Your task to perform on an android device: toggle show notifications on the lock screen Image 0: 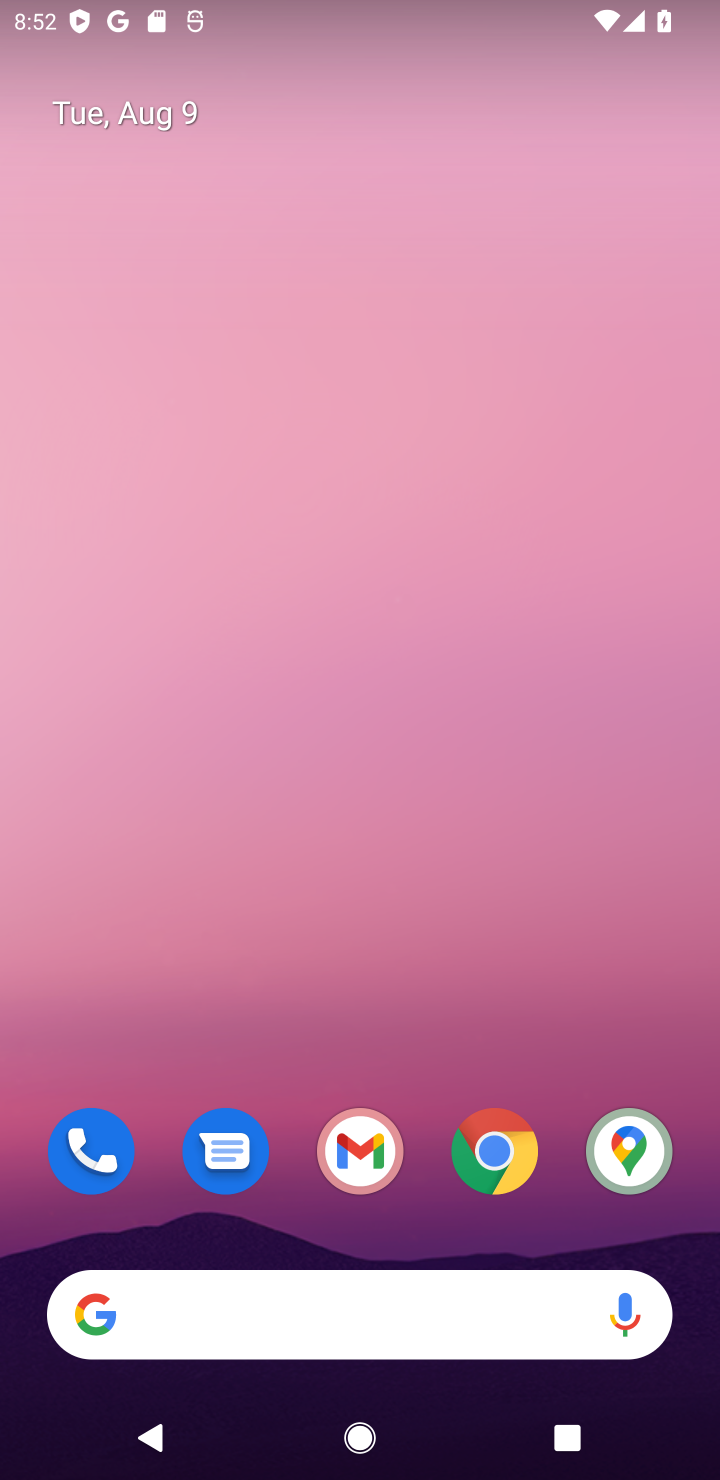
Step 0: drag from (295, 1220) to (409, 464)
Your task to perform on an android device: toggle show notifications on the lock screen Image 1: 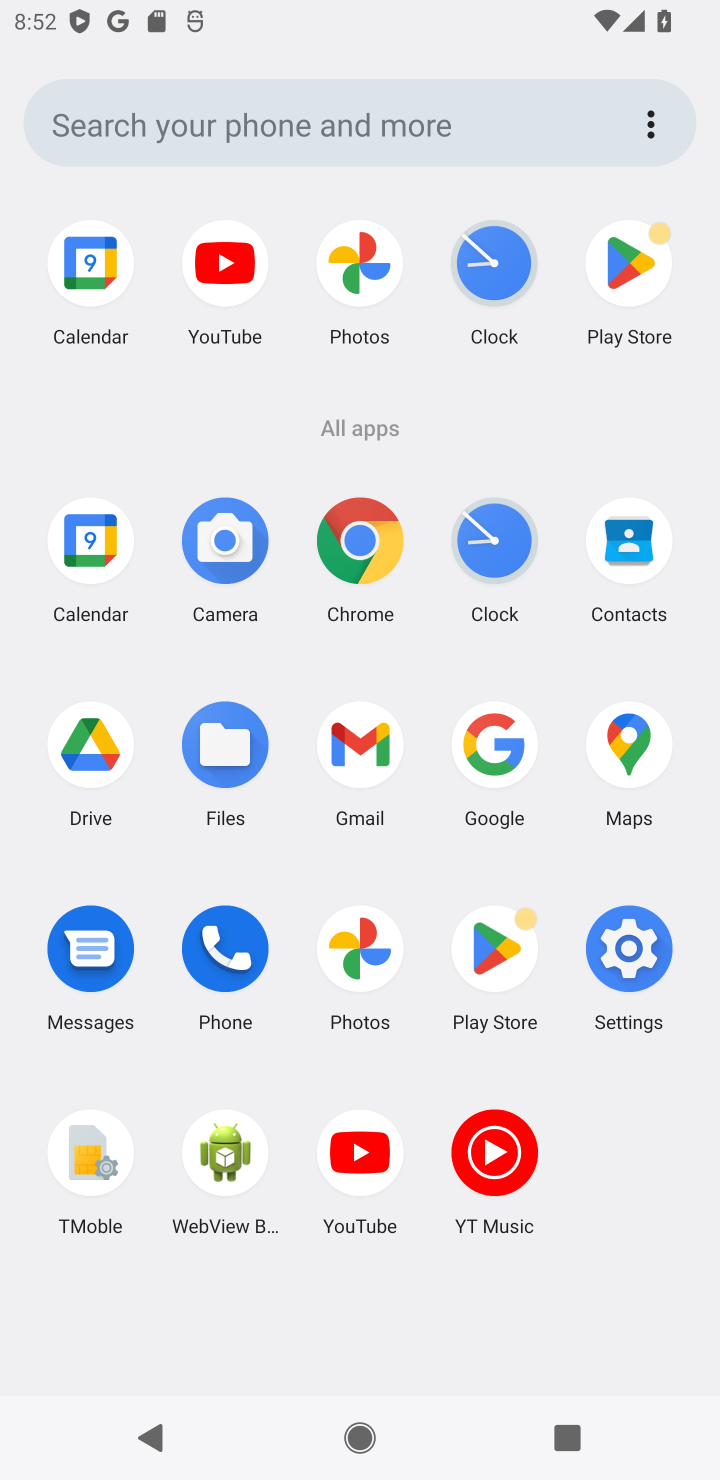
Step 1: click (606, 988)
Your task to perform on an android device: toggle show notifications on the lock screen Image 2: 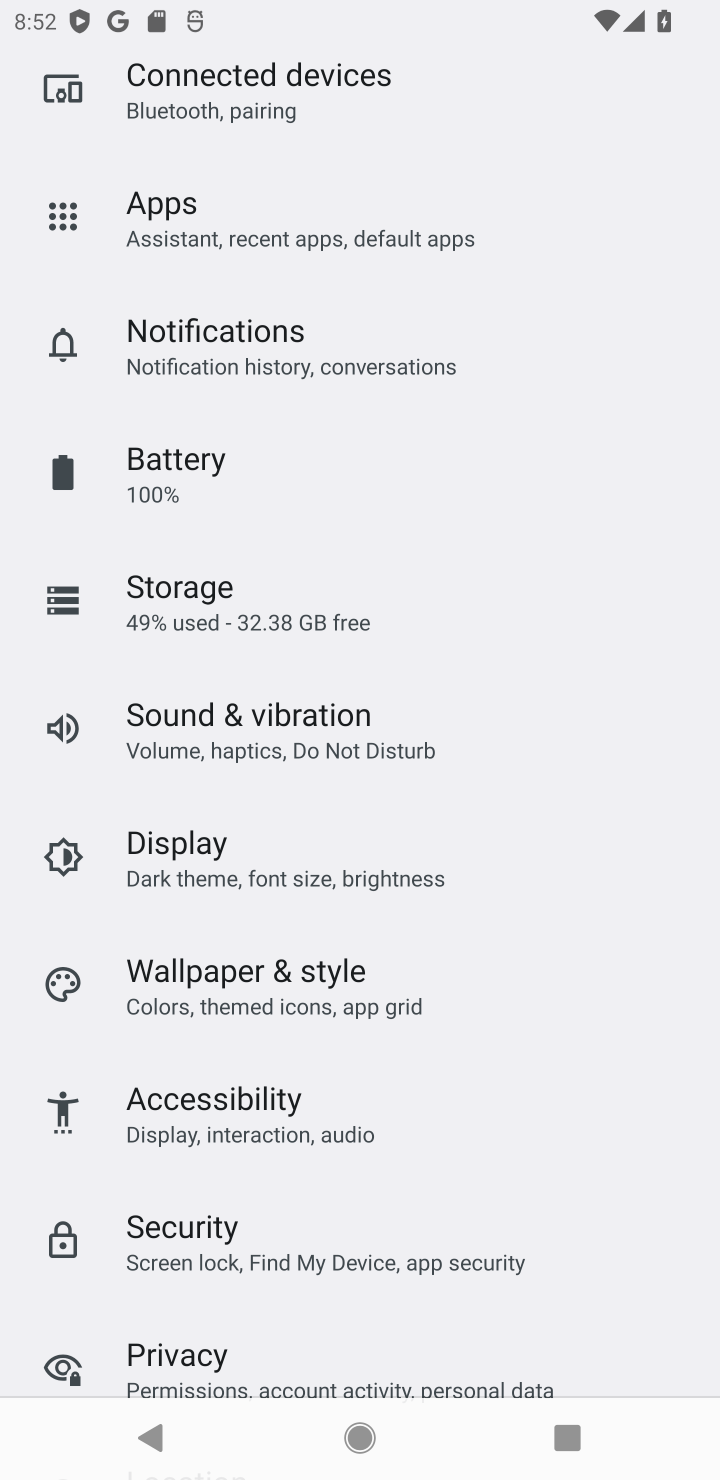
Step 2: click (290, 338)
Your task to perform on an android device: toggle show notifications on the lock screen Image 3: 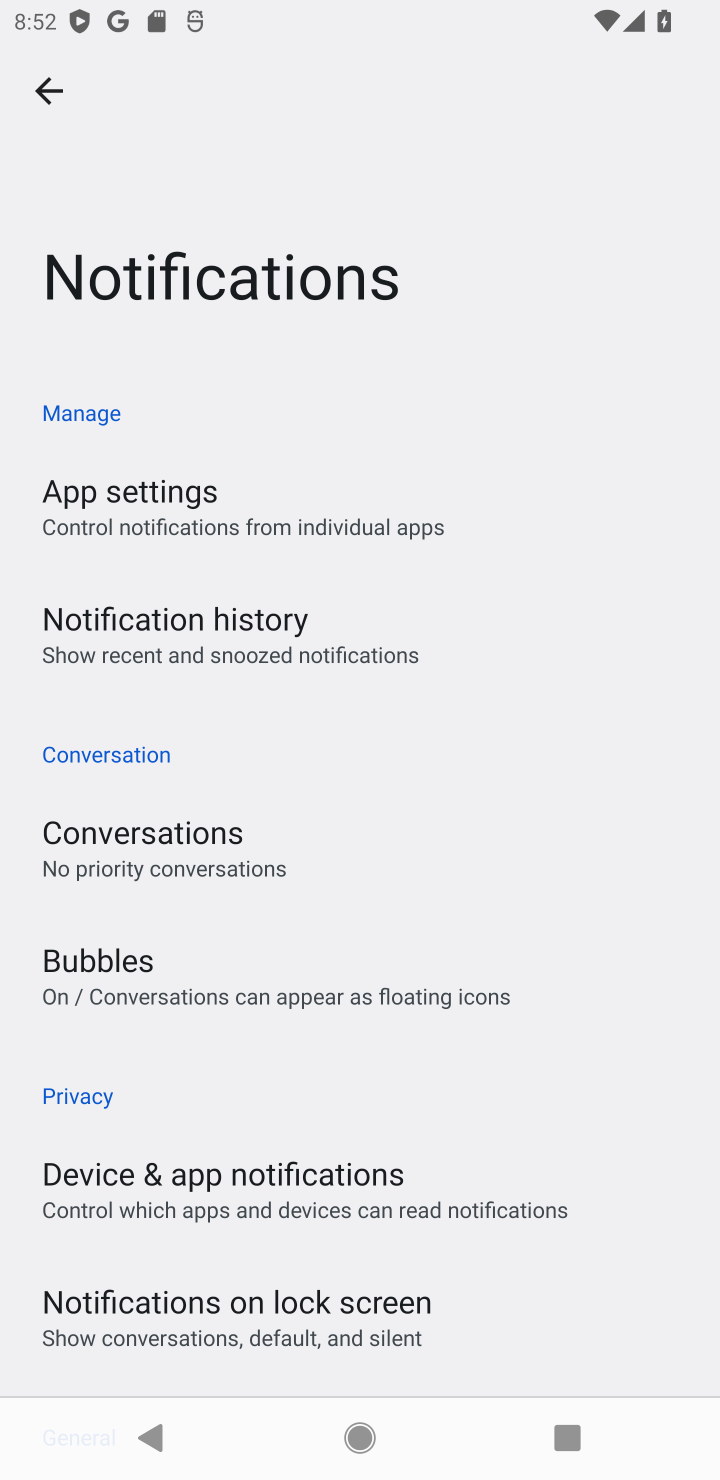
Step 3: click (389, 1302)
Your task to perform on an android device: toggle show notifications on the lock screen Image 4: 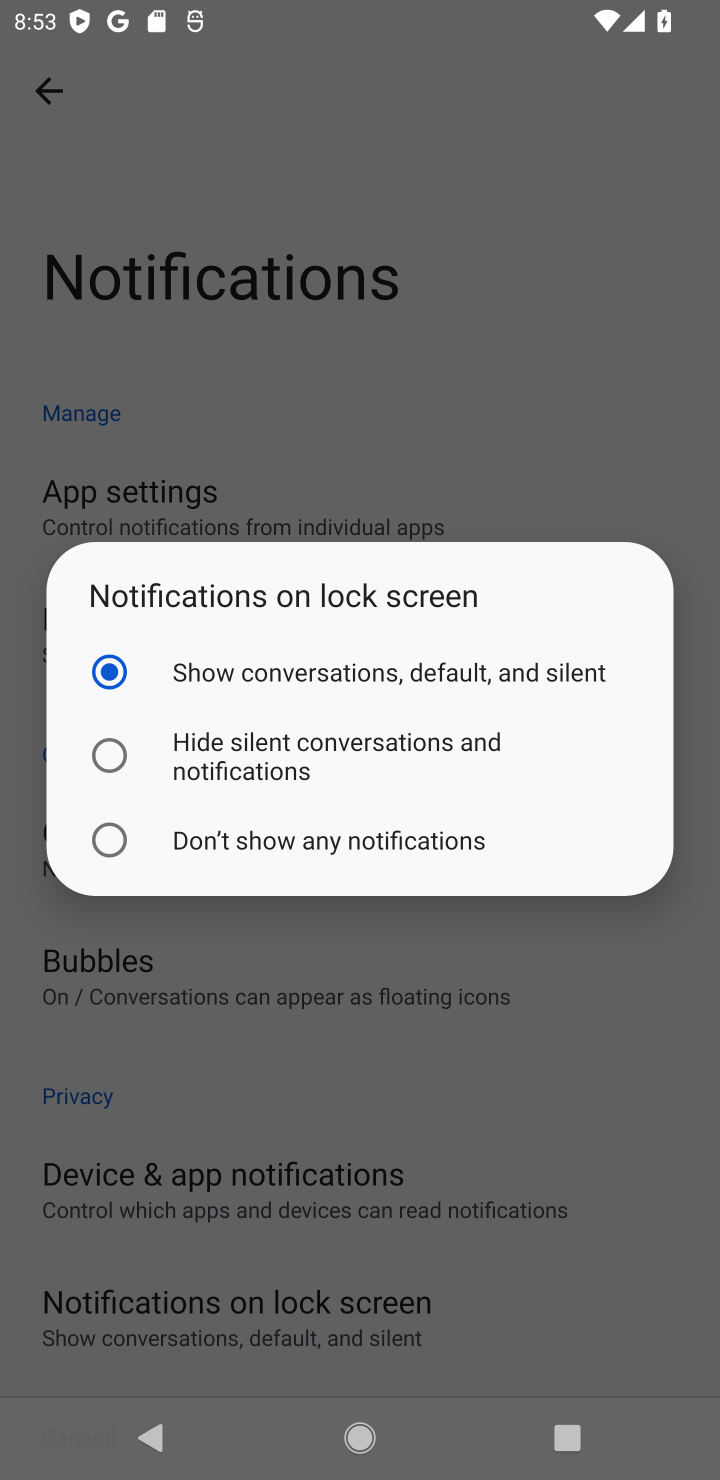
Step 4: click (260, 673)
Your task to perform on an android device: toggle show notifications on the lock screen Image 5: 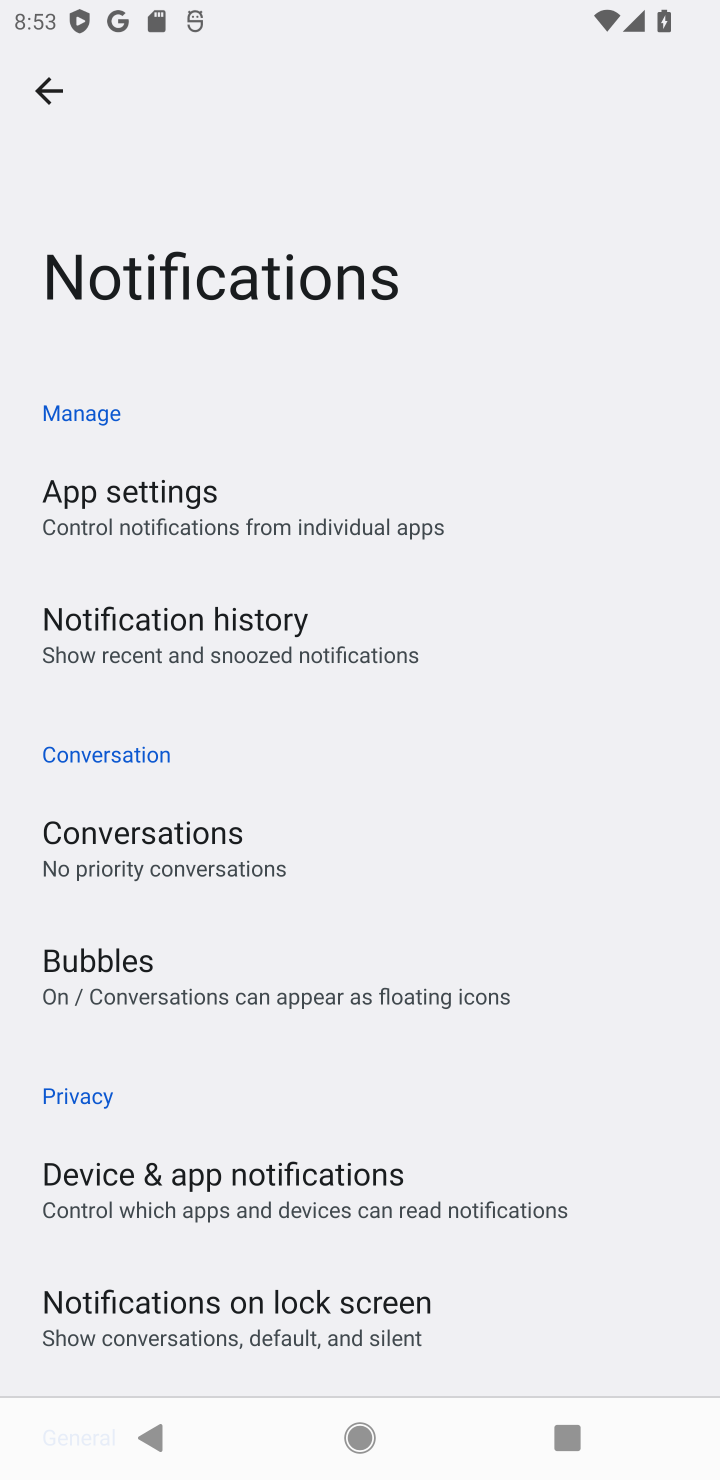
Step 5: task complete